Your task to perform on an android device: turn off notifications in google photos Image 0: 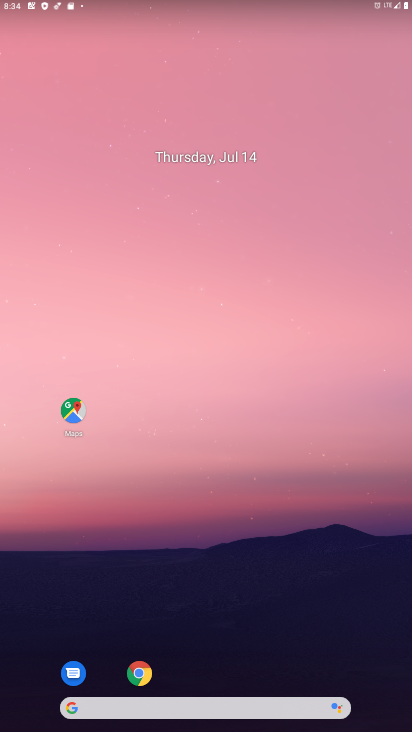
Step 0: drag from (211, 710) to (307, 102)
Your task to perform on an android device: turn off notifications in google photos Image 1: 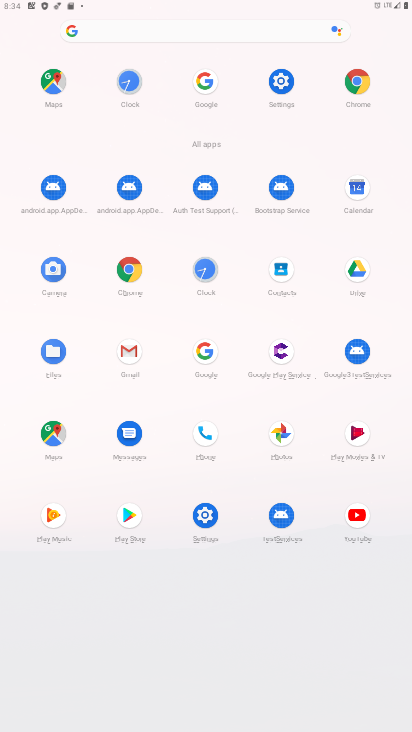
Step 1: click (284, 433)
Your task to perform on an android device: turn off notifications in google photos Image 2: 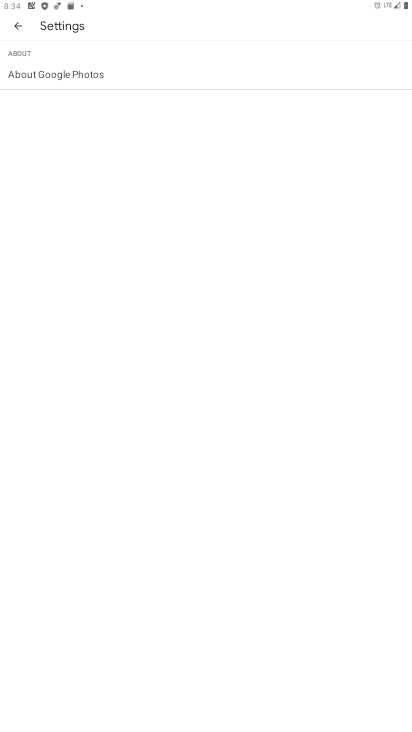
Step 2: press back button
Your task to perform on an android device: turn off notifications in google photos Image 3: 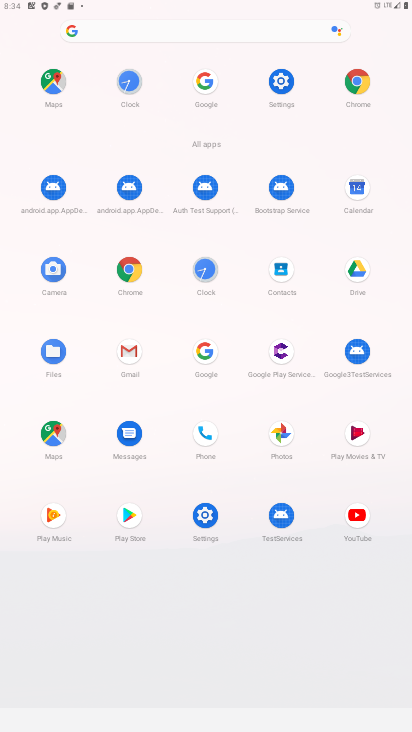
Step 3: click (281, 434)
Your task to perform on an android device: turn off notifications in google photos Image 4: 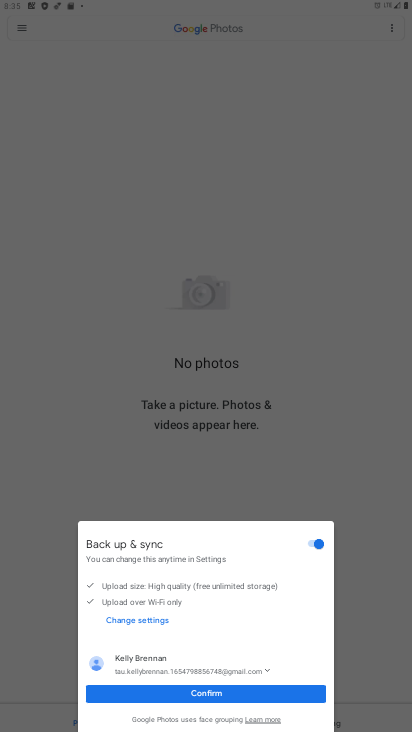
Step 4: click (193, 696)
Your task to perform on an android device: turn off notifications in google photos Image 5: 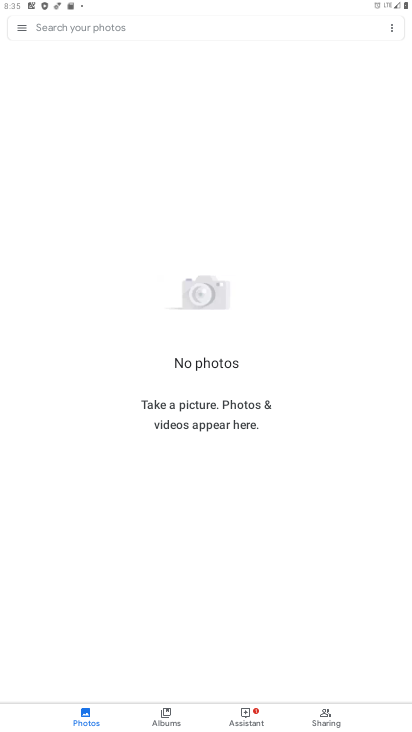
Step 5: click (23, 27)
Your task to perform on an android device: turn off notifications in google photos Image 6: 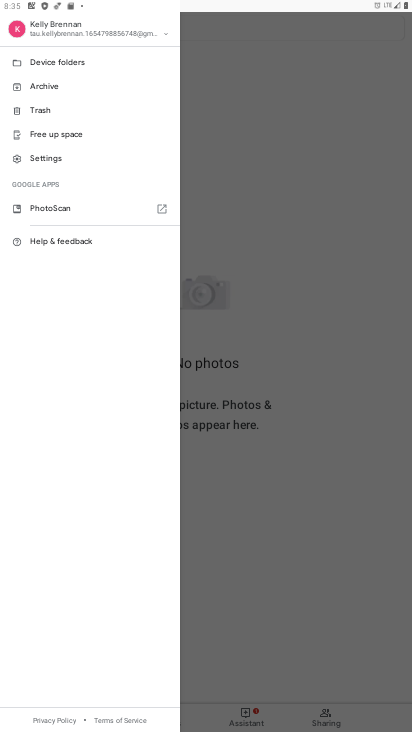
Step 6: click (50, 159)
Your task to perform on an android device: turn off notifications in google photos Image 7: 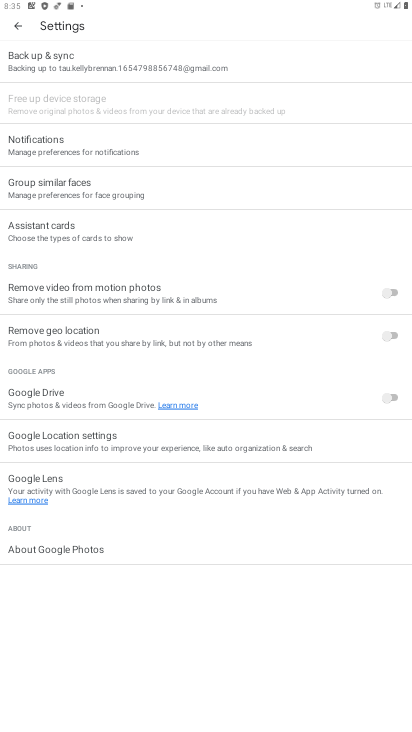
Step 7: click (52, 145)
Your task to perform on an android device: turn off notifications in google photos Image 8: 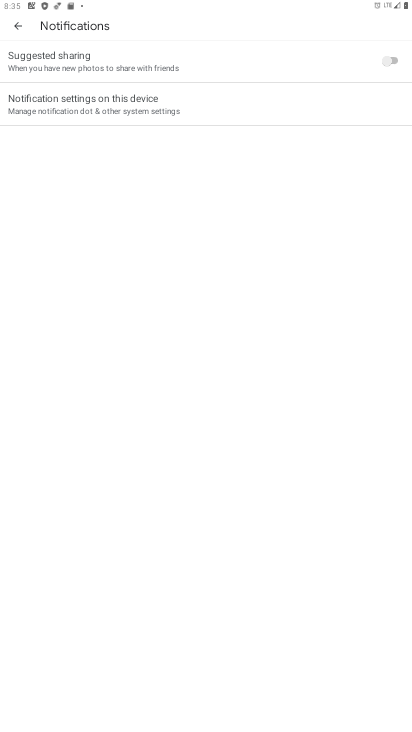
Step 8: click (72, 104)
Your task to perform on an android device: turn off notifications in google photos Image 9: 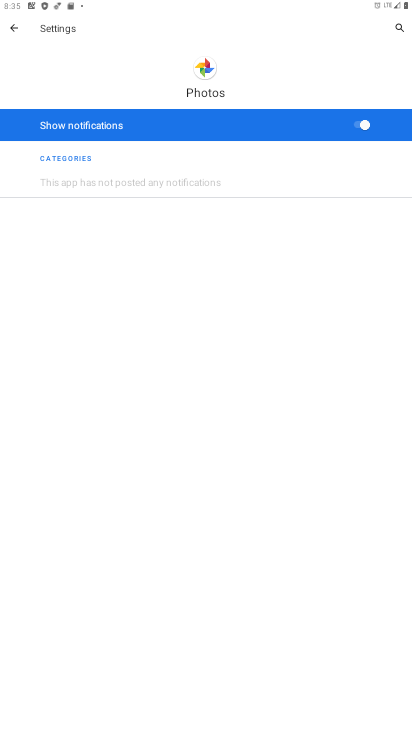
Step 9: click (364, 126)
Your task to perform on an android device: turn off notifications in google photos Image 10: 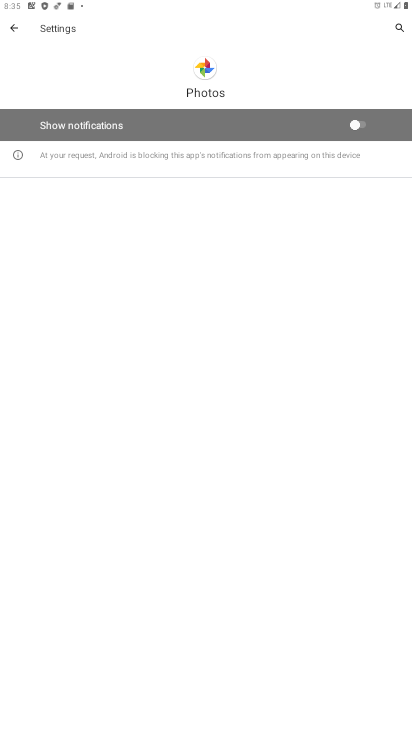
Step 10: task complete